Your task to perform on an android device: Search for the best rated desk chair on Article.com Image 0: 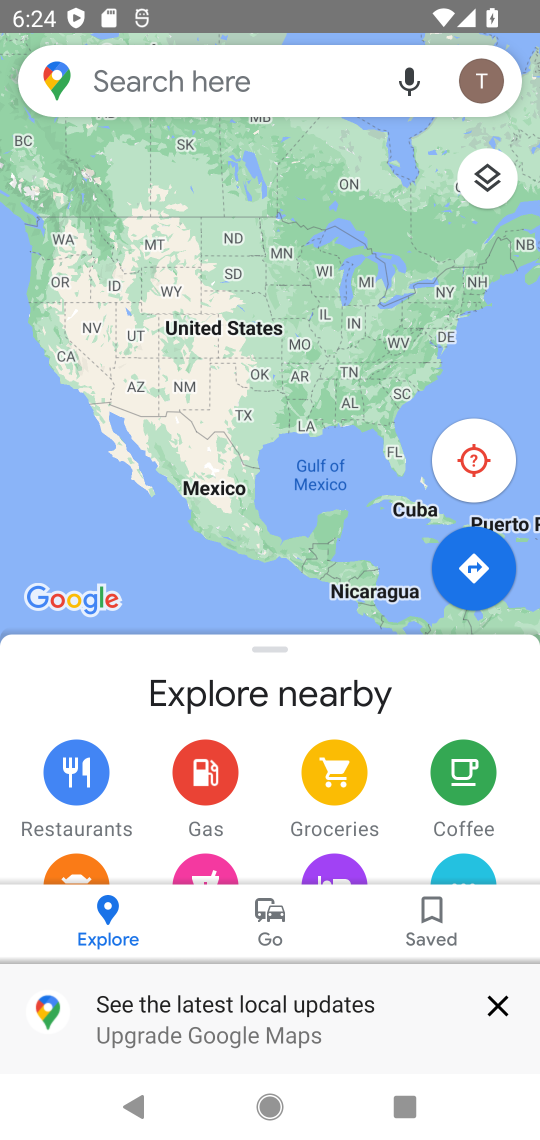
Step 0: press home button
Your task to perform on an android device: Search for the best rated desk chair on Article.com Image 1: 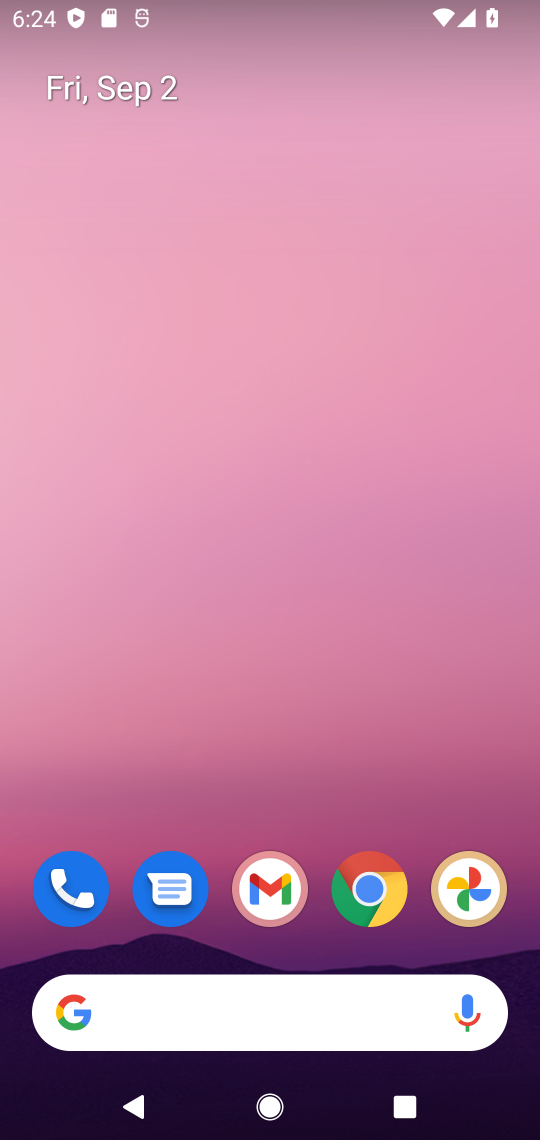
Step 1: click (279, 999)
Your task to perform on an android device: Search for the best rated desk chair on Article.com Image 2: 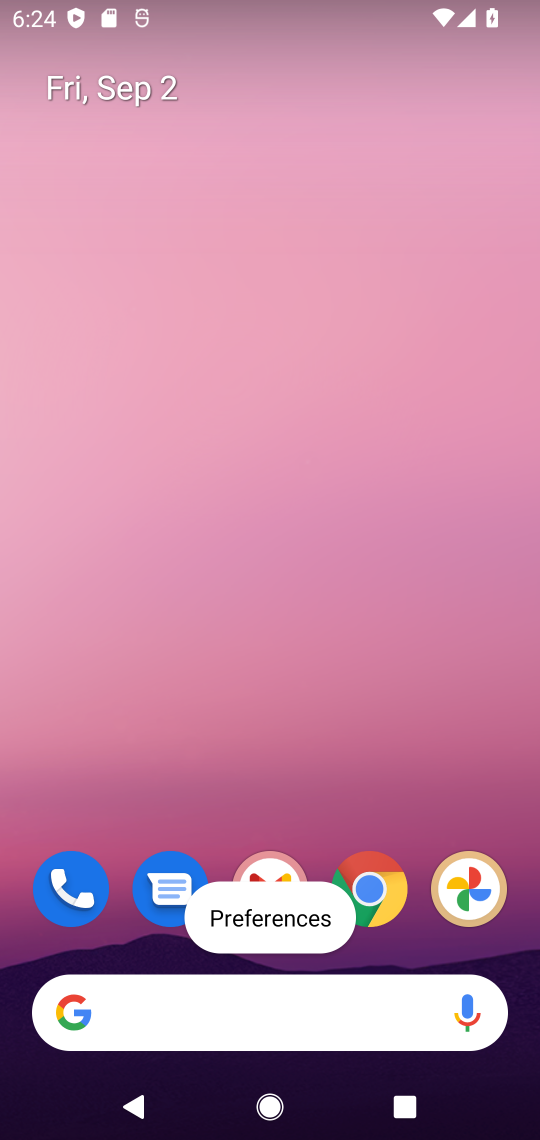
Step 2: click (287, 1016)
Your task to perform on an android device: Search for the best rated desk chair on Article.com Image 3: 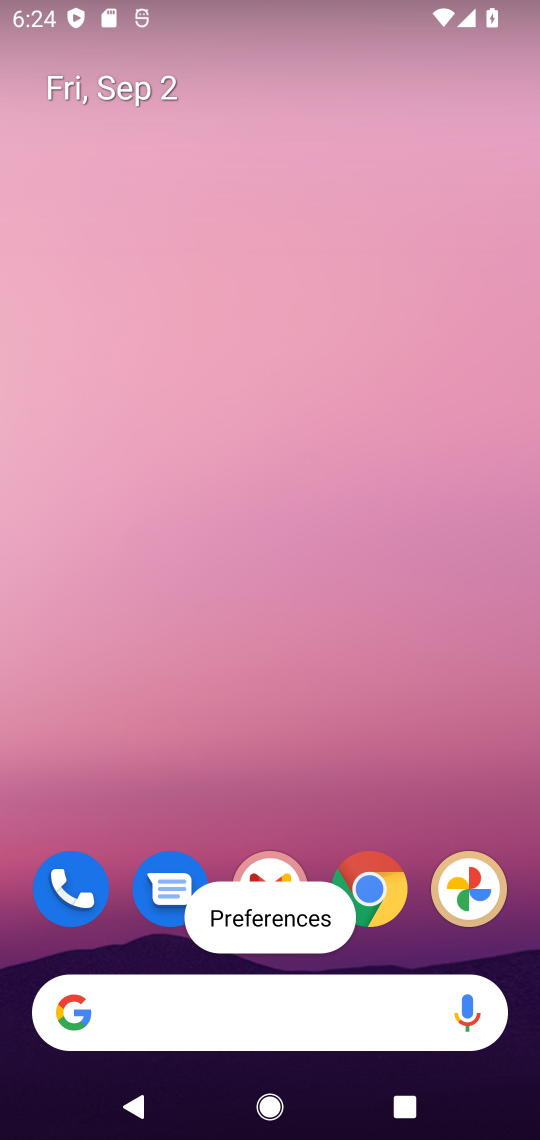
Step 3: click (283, 1014)
Your task to perform on an android device: Search for the best rated desk chair on Article.com Image 4: 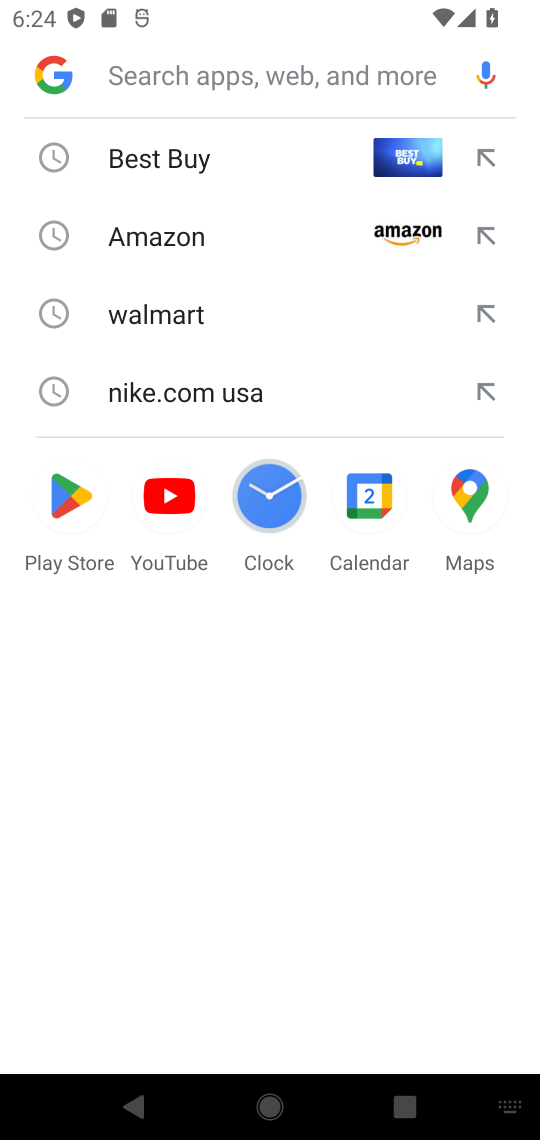
Step 4: type "Article.com"
Your task to perform on an android device: Search for the best rated desk chair on Article.com Image 5: 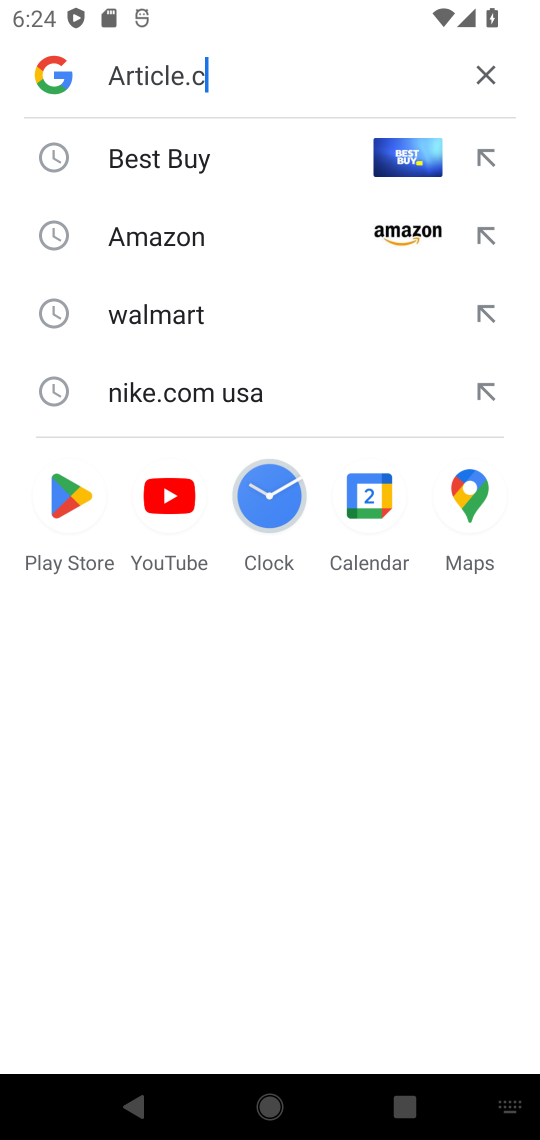
Step 5: type ""
Your task to perform on an android device: Search for the best rated desk chair on Article.com Image 6: 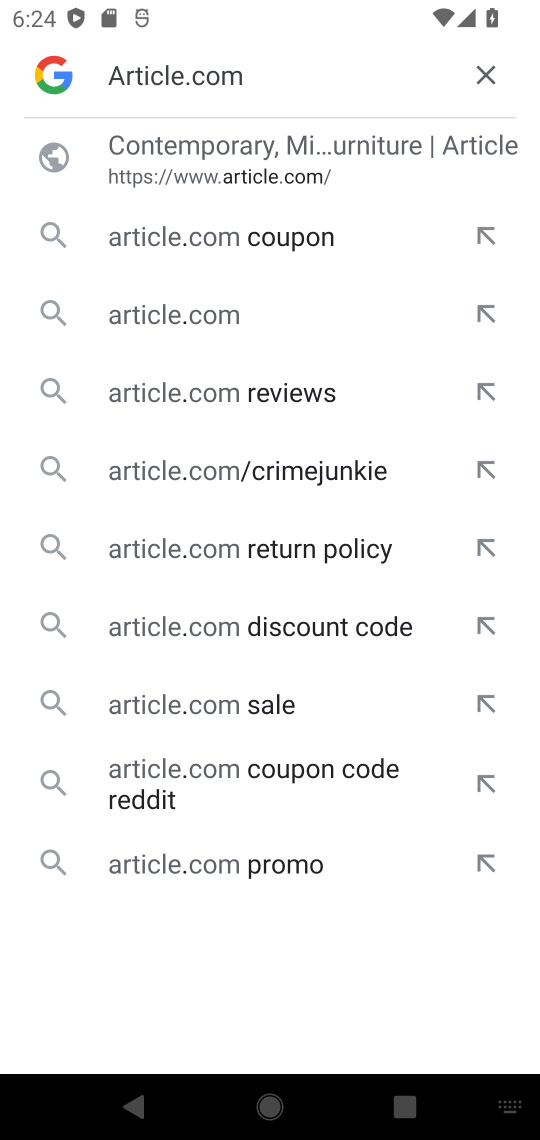
Step 6: click (268, 307)
Your task to perform on an android device: Search for the best rated desk chair on Article.com Image 7: 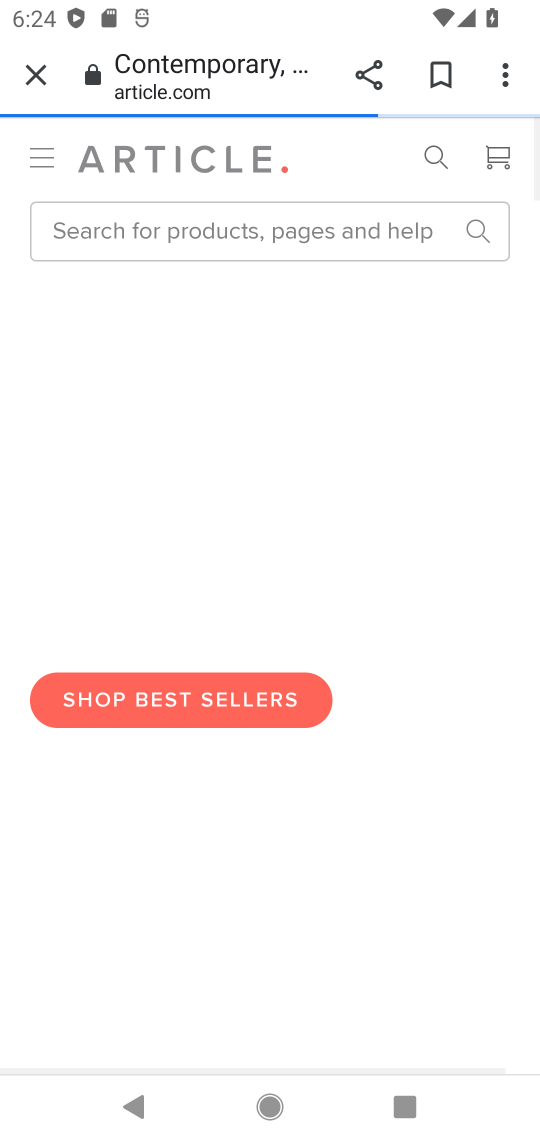
Step 7: click (220, 239)
Your task to perform on an android device: Search for the best rated desk chair on Article.com Image 8: 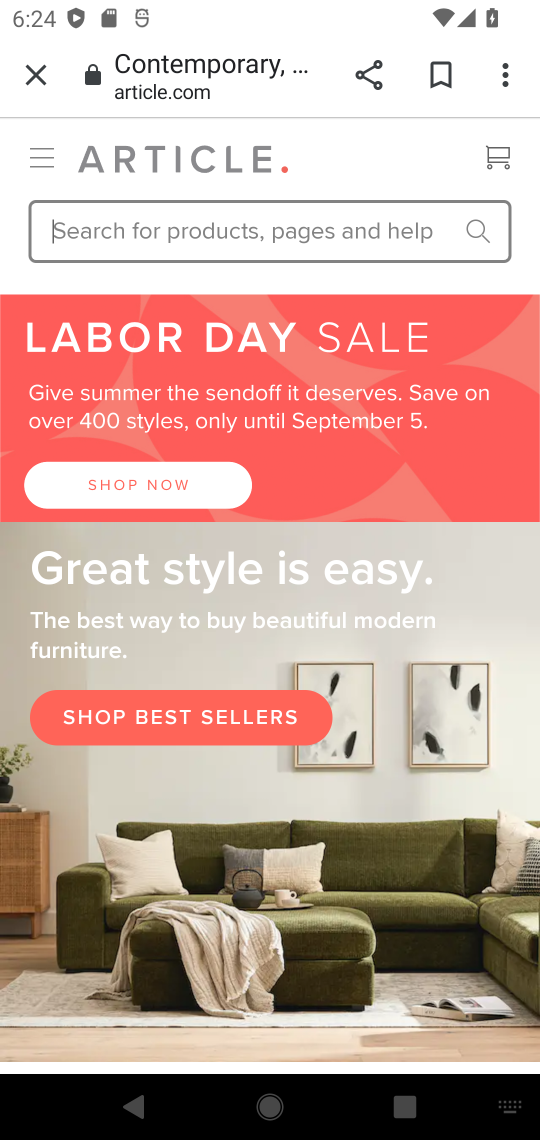
Step 8: type "best rated desk chair"
Your task to perform on an android device: Search for the best rated desk chair on Article.com Image 9: 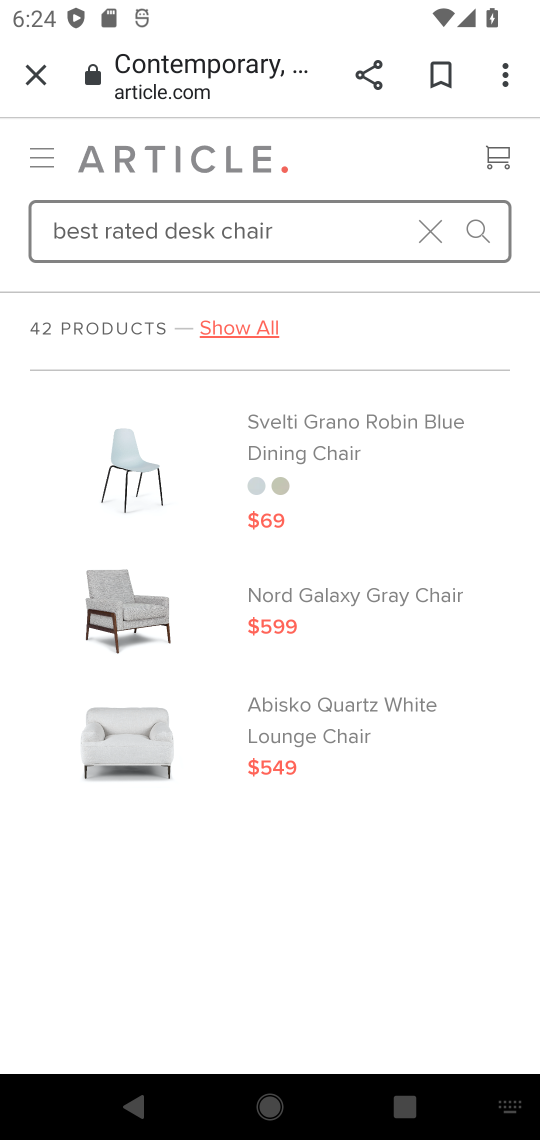
Step 9: click (477, 231)
Your task to perform on an android device: Search for the best rated desk chair on Article.com Image 10: 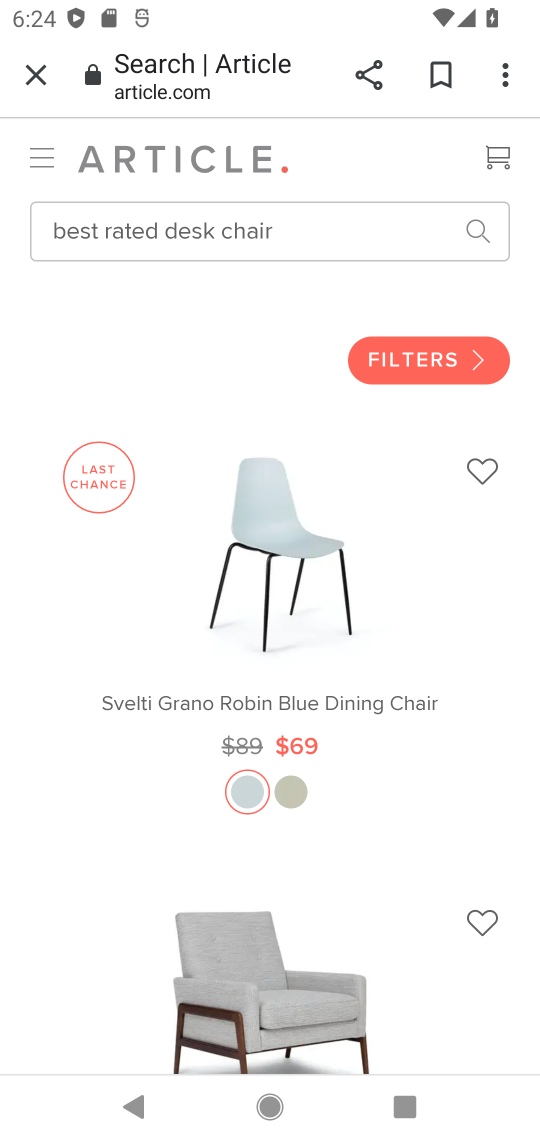
Step 10: task complete